Your task to perform on an android device: Do I have any events today? Image 0: 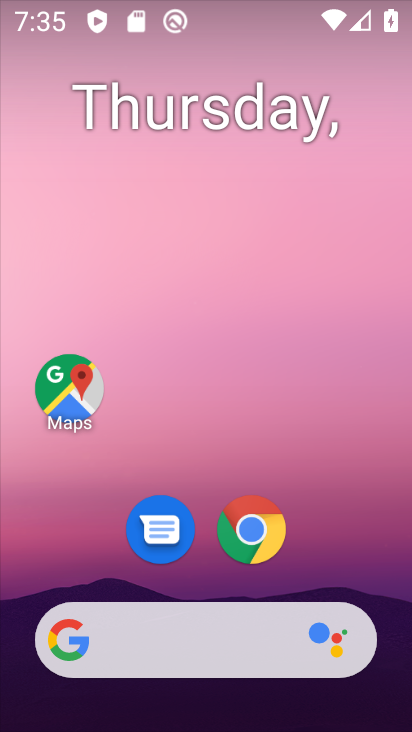
Step 0: click (183, 102)
Your task to perform on an android device: Do I have any events today? Image 1: 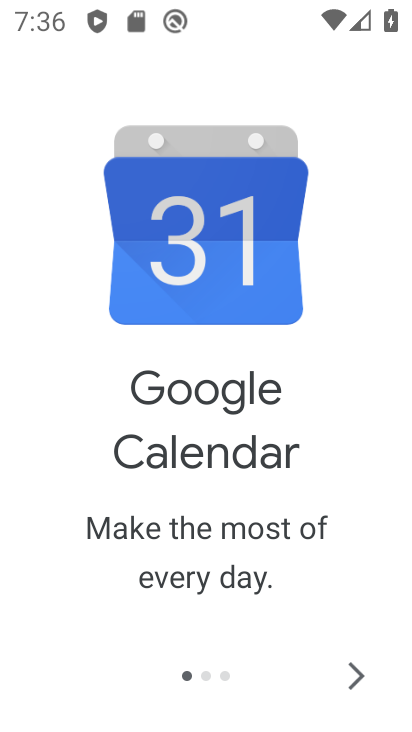
Step 1: click (355, 660)
Your task to perform on an android device: Do I have any events today? Image 2: 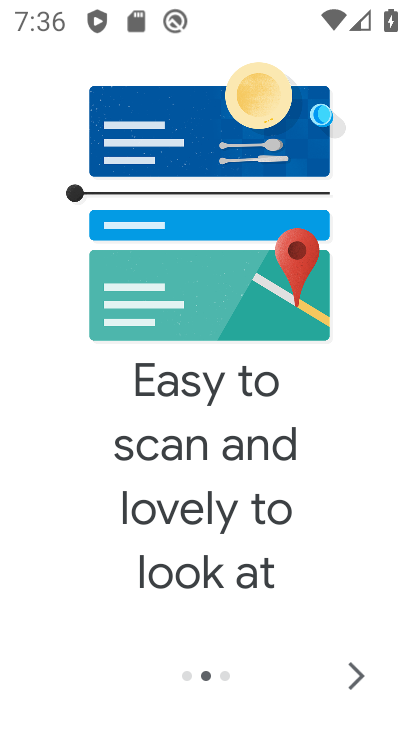
Step 2: click (355, 660)
Your task to perform on an android device: Do I have any events today? Image 3: 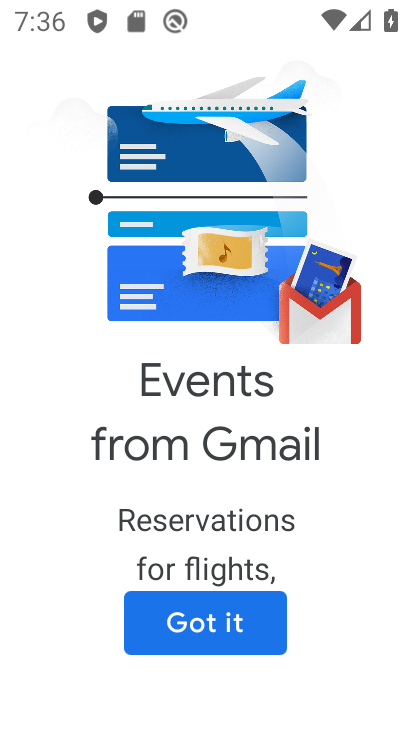
Step 3: click (355, 660)
Your task to perform on an android device: Do I have any events today? Image 4: 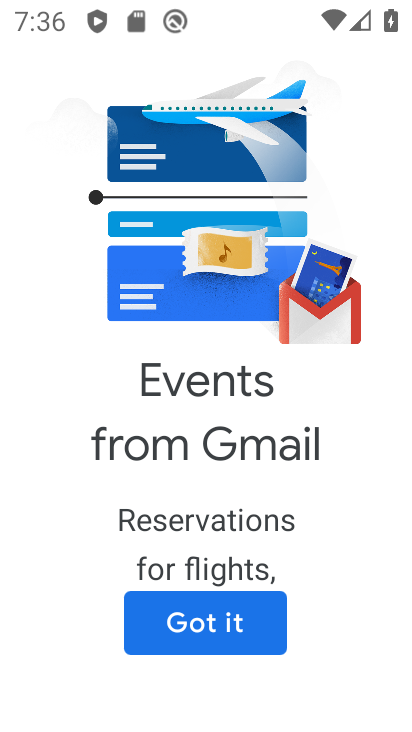
Step 4: click (205, 632)
Your task to perform on an android device: Do I have any events today? Image 5: 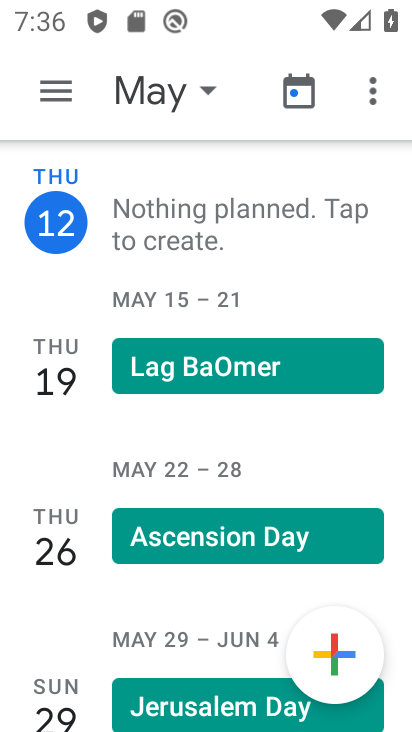
Step 5: click (161, 222)
Your task to perform on an android device: Do I have any events today? Image 6: 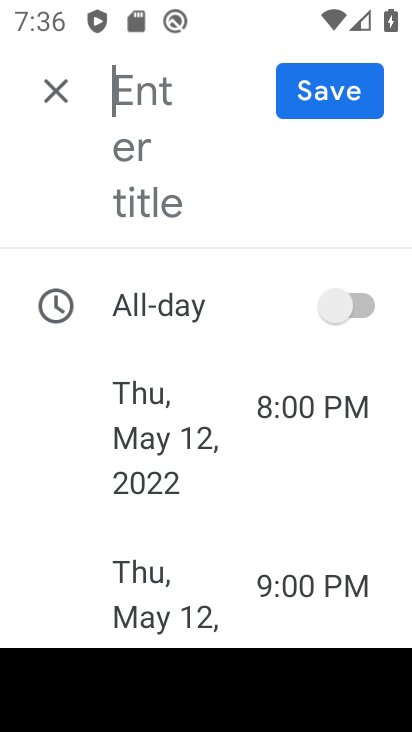
Step 6: task complete